Your task to perform on an android device: Open the Play Movies app and select the watchlist tab. Image 0: 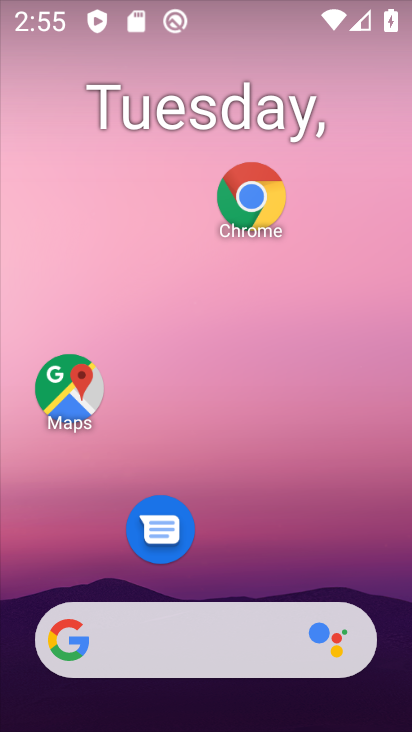
Step 0: drag from (199, 600) to (204, 160)
Your task to perform on an android device: Open the Play Movies app and select the watchlist tab. Image 1: 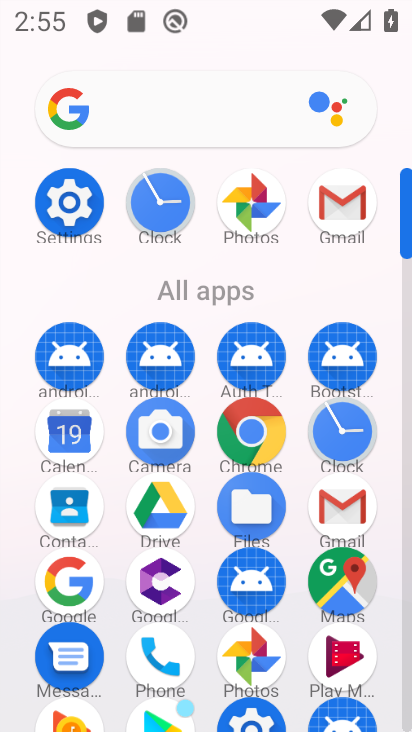
Step 1: click (326, 667)
Your task to perform on an android device: Open the Play Movies app and select the watchlist tab. Image 2: 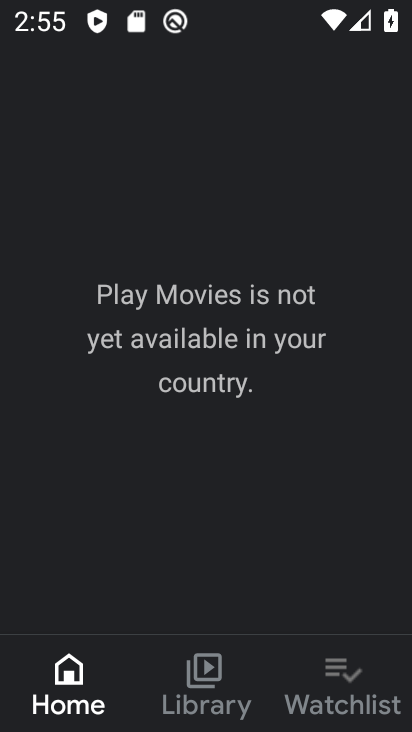
Step 2: click (317, 672)
Your task to perform on an android device: Open the Play Movies app and select the watchlist tab. Image 3: 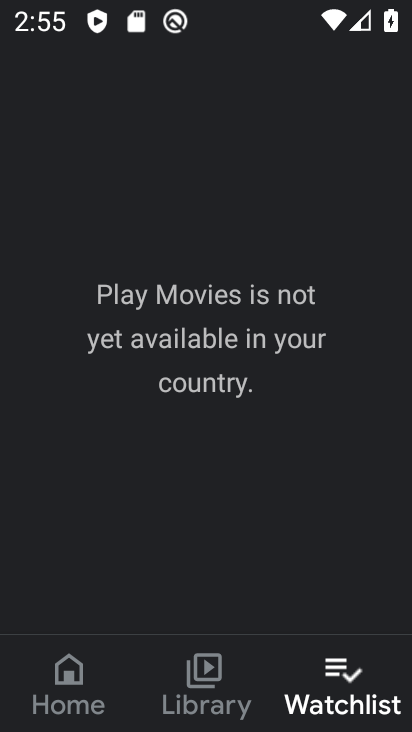
Step 3: task complete